Your task to perform on an android device: What's the weather? Image 0: 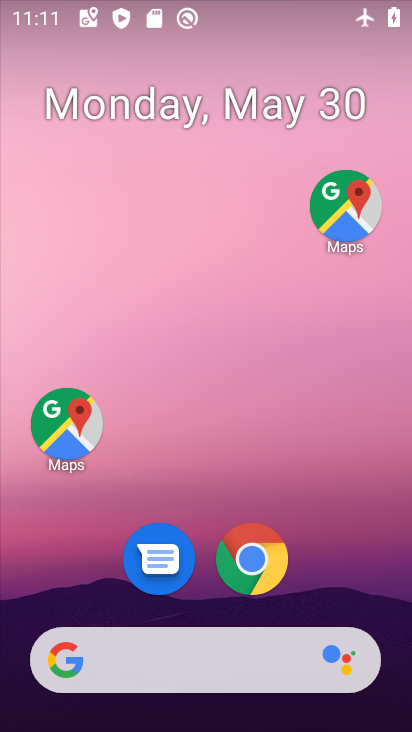
Step 0: click (252, 563)
Your task to perform on an android device: What's the weather? Image 1: 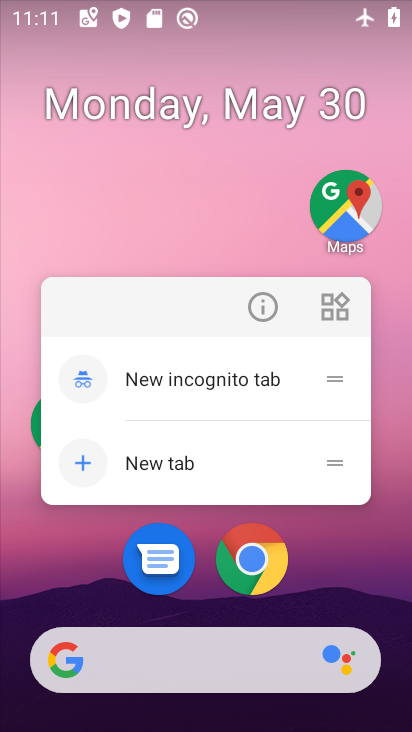
Step 1: click (253, 562)
Your task to perform on an android device: What's the weather? Image 2: 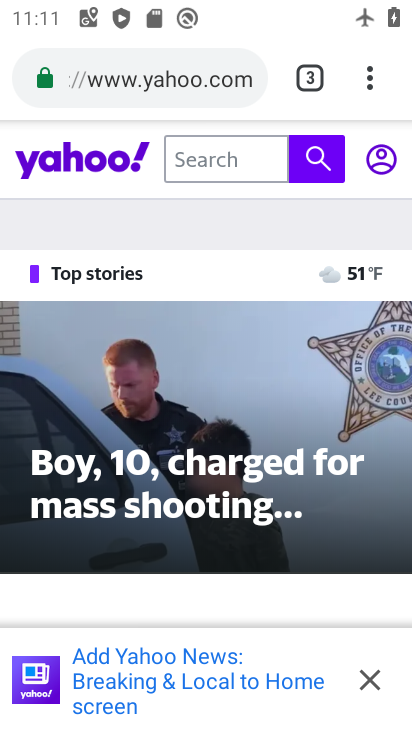
Step 2: click (235, 69)
Your task to perform on an android device: What's the weather? Image 3: 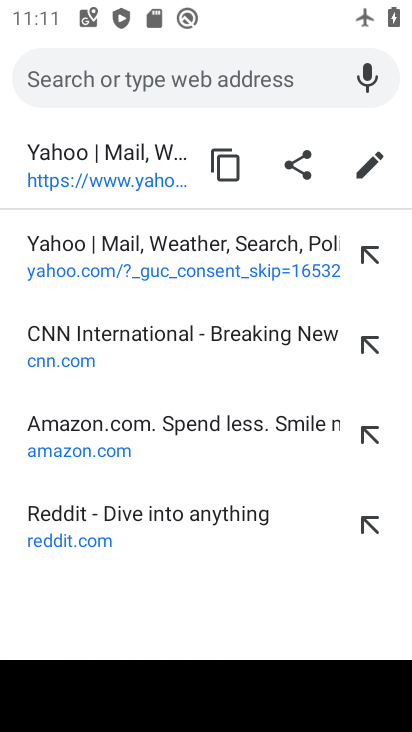
Step 3: type "weather"
Your task to perform on an android device: What's the weather? Image 4: 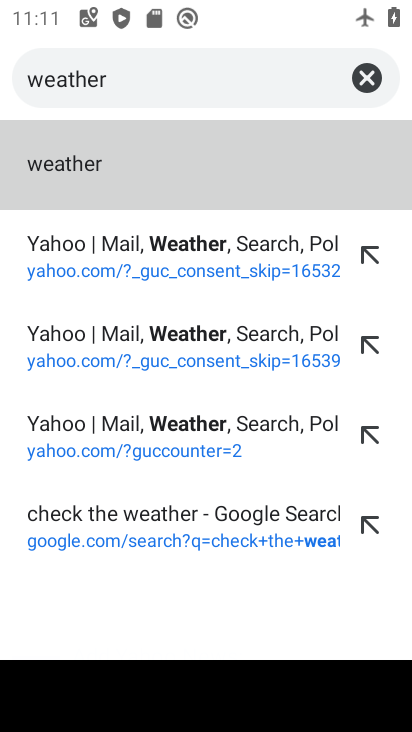
Step 4: click (84, 166)
Your task to perform on an android device: What's the weather? Image 5: 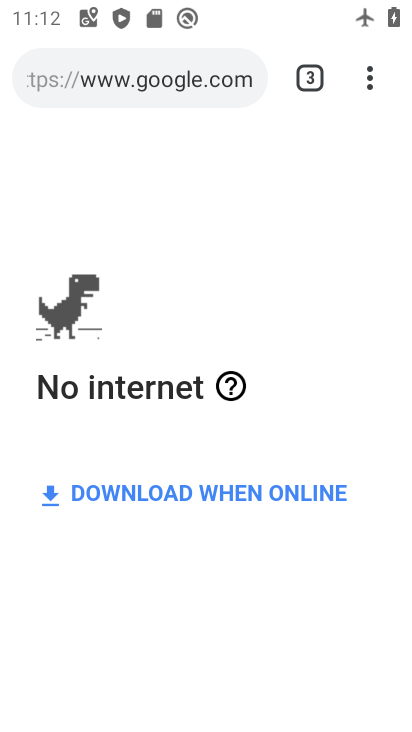
Step 5: task complete